Your task to perform on an android device: open wifi settings Image 0: 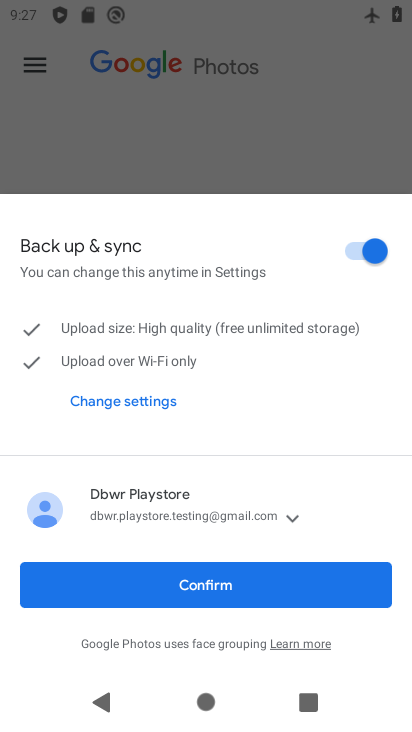
Step 0: press home button
Your task to perform on an android device: open wifi settings Image 1: 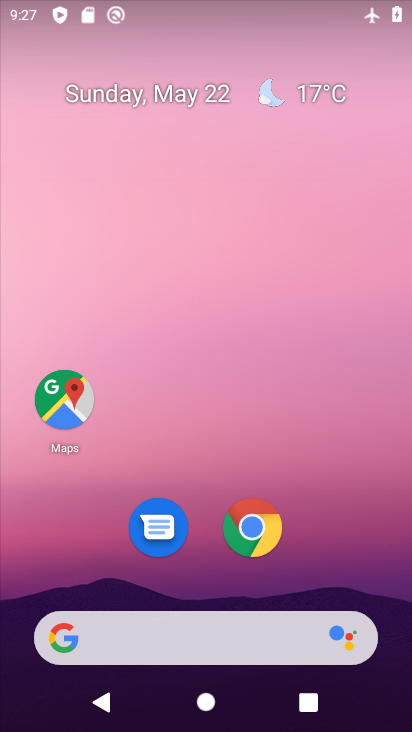
Step 1: drag from (329, 562) to (291, 117)
Your task to perform on an android device: open wifi settings Image 2: 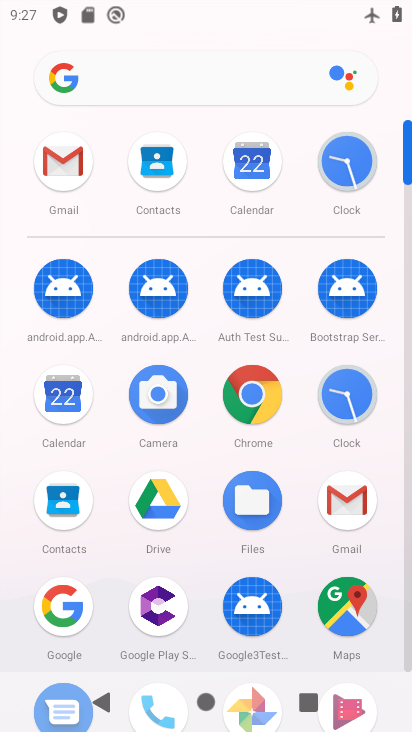
Step 2: drag from (207, 585) to (214, 126)
Your task to perform on an android device: open wifi settings Image 3: 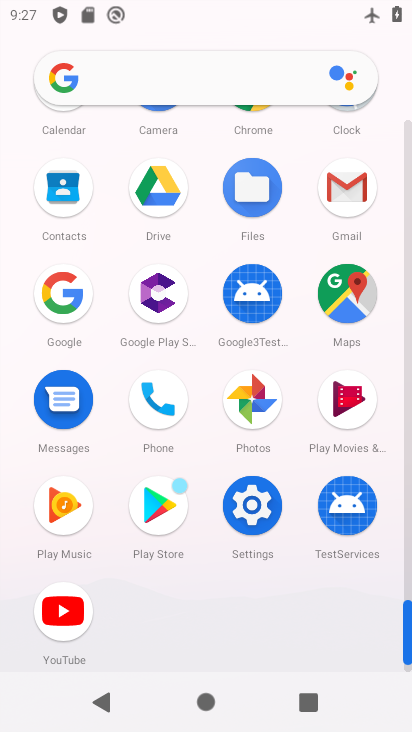
Step 3: click (250, 500)
Your task to perform on an android device: open wifi settings Image 4: 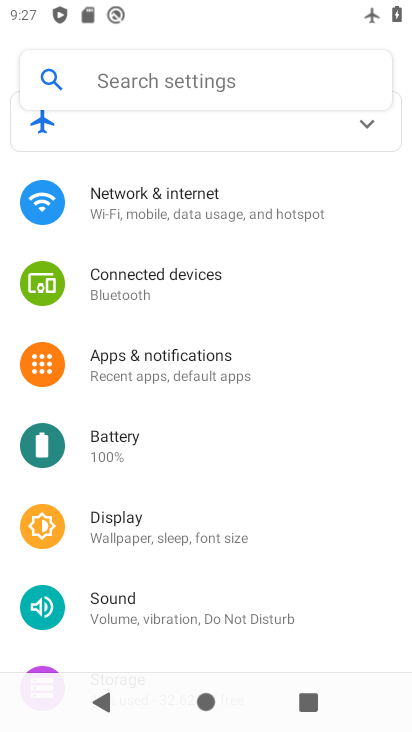
Step 4: drag from (261, 519) to (139, 128)
Your task to perform on an android device: open wifi settings Image 5: 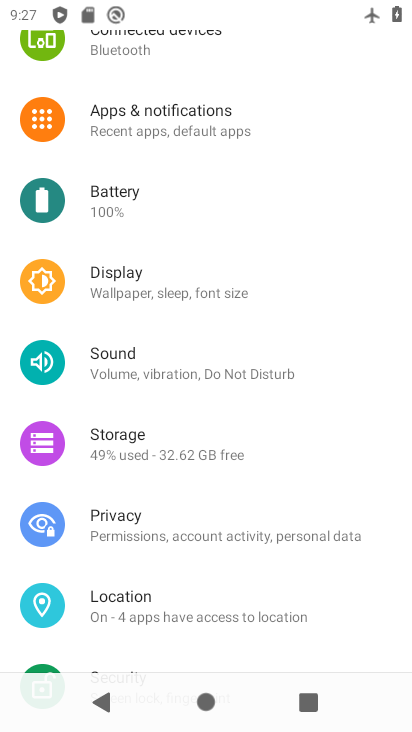
Step 5: drag from (220, 491) to (220, 128)
Your task to perform on an android device: open wifi settings Image 6: 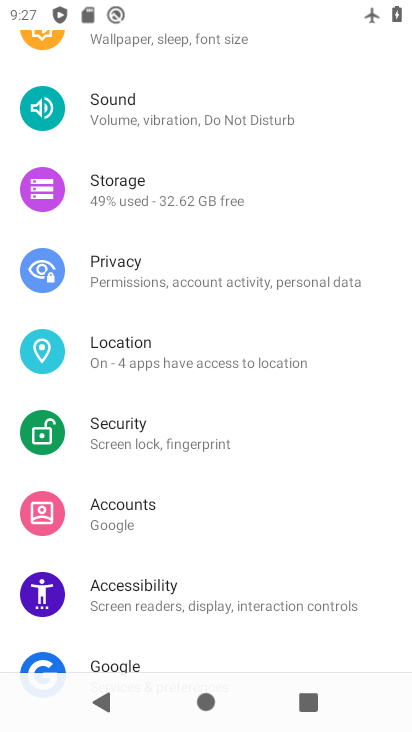
Step 6: drag from (233, 506) to (280, 177)
Your task to perform on an android device: open wifi settings Image 7: 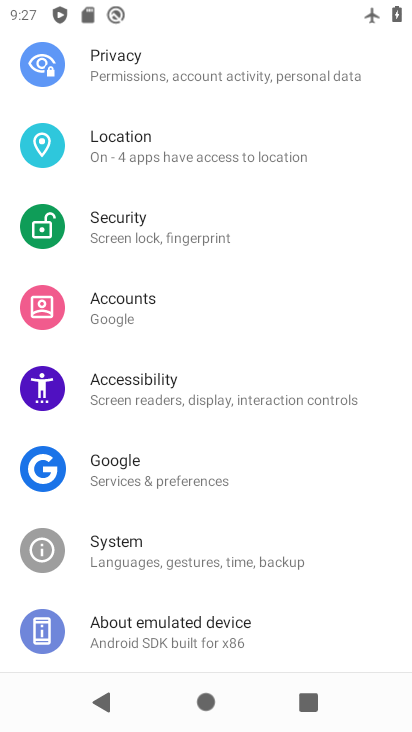
Step 7: drag from (266, 113) to (272, 491)
Your task to perform on an android device: open wifi settings Image 8: 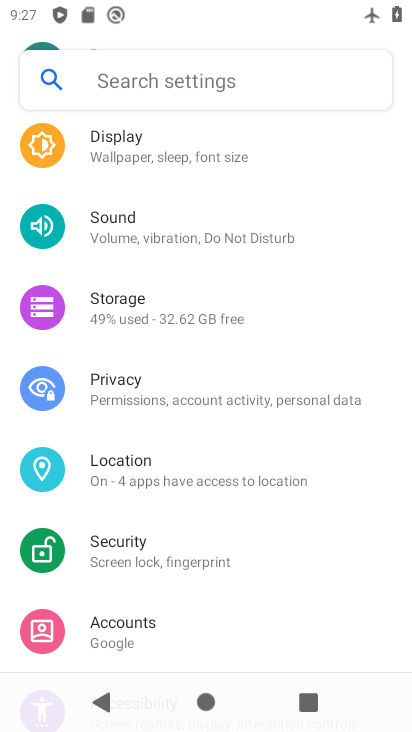
Step 8: drag from (225, 182) to (206, 684)
Your task to perform on an android device: open wifi settings Image 9: 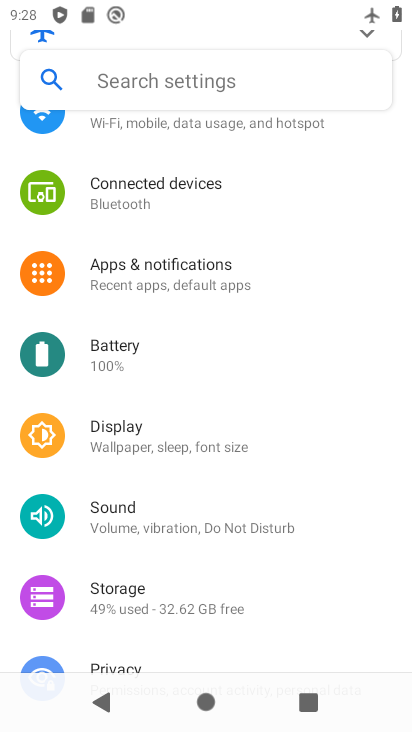
Step 9: drag from (195, 240) to (238, 618)
Your task to perform on an android device: open wifi settings Image 10: 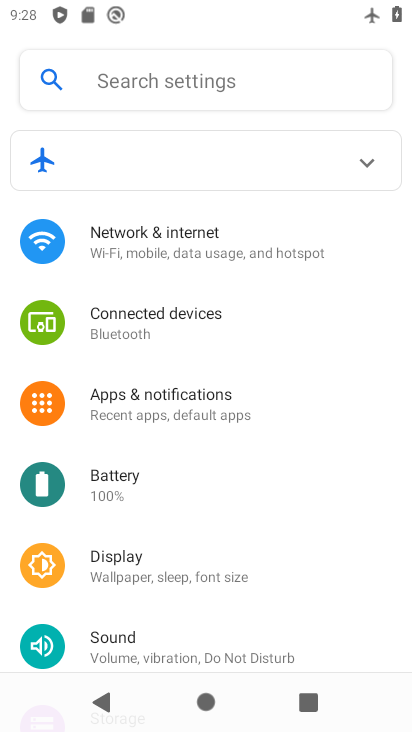
Step 10: click (160, 231)
Your task to perform on an android device: open wifi settings Image 11: 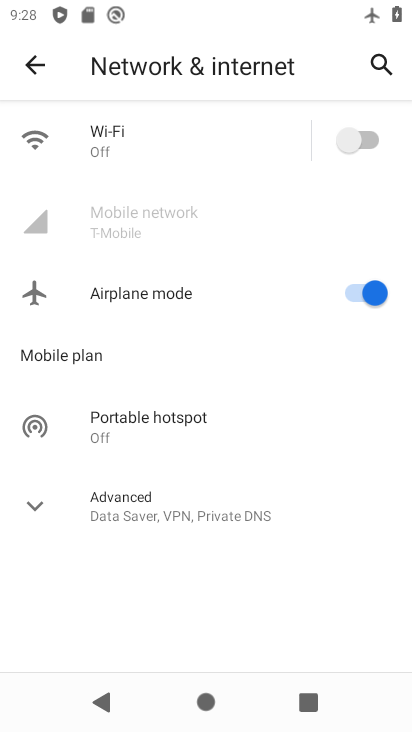
Step 11: click (109, 132)
Your task to perform on an android device: open wifi settings Image 12: 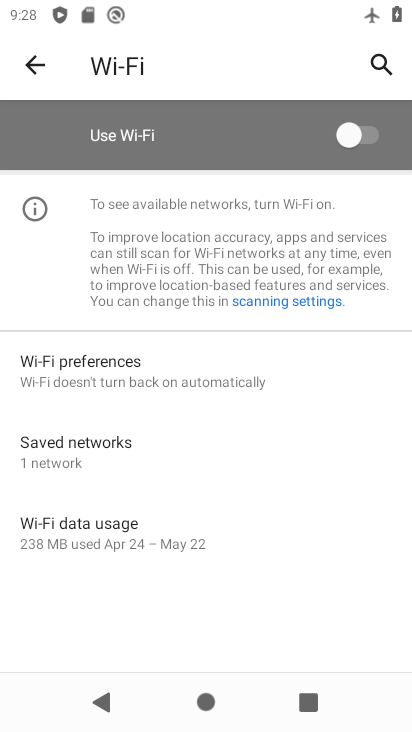
Step 12: task complete